Your task to perform on an android device: turn off priority inbox in the gmail app Image 0: 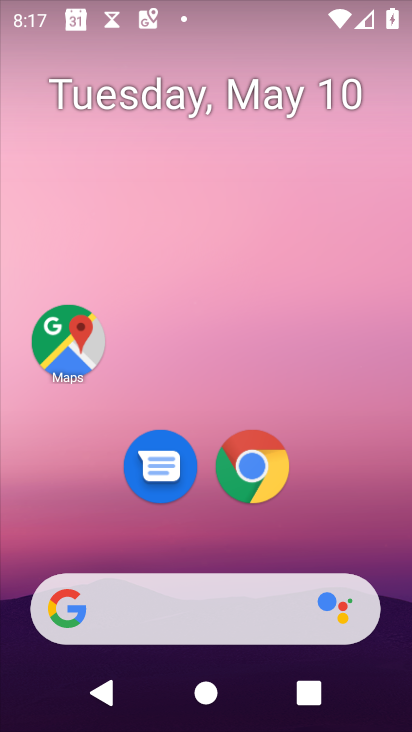
Step 0: drag from (356, 529) to (370, 26)
Your task to perform on an android device: turn off priority inbox in the gmail app Image 1: 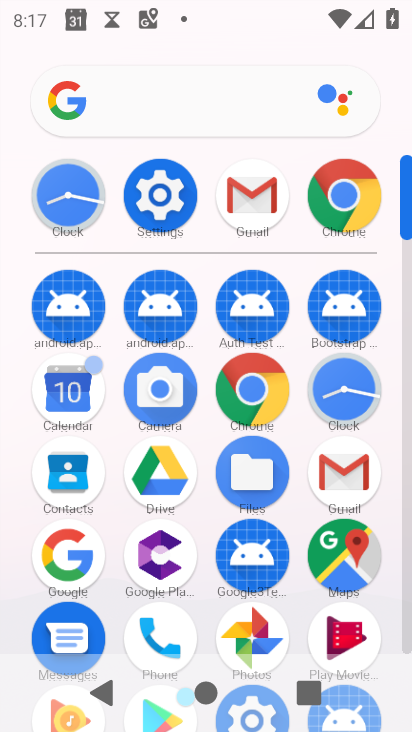
Step 1: click (358, 490)
Your task to perform on an android device: turn off priority inbox in the gmail app Image 2: 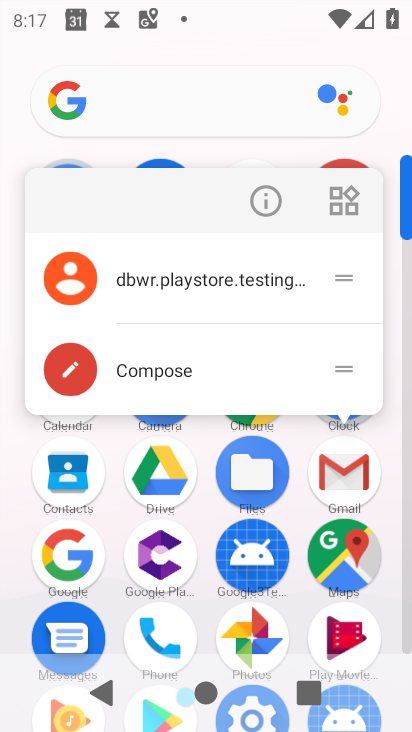
Step 2: click (353, 483)
Your task to perform on an android device: turn off priority inbox in the gmail app Image 3: 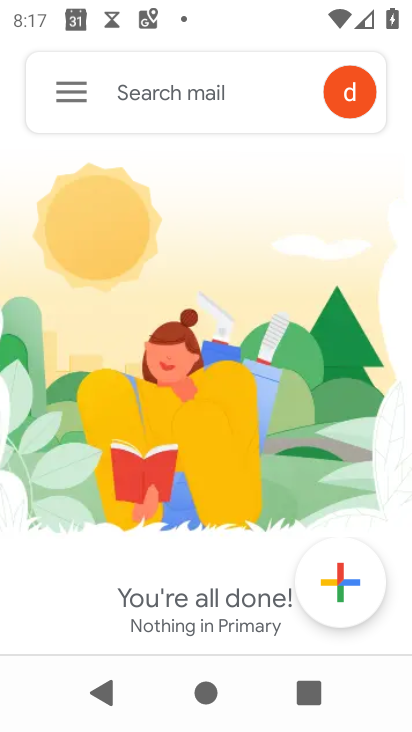
Step 3: click (65, 102)
Your task to perform on an android device: turn off priority inbox in the gmail app Image 4: 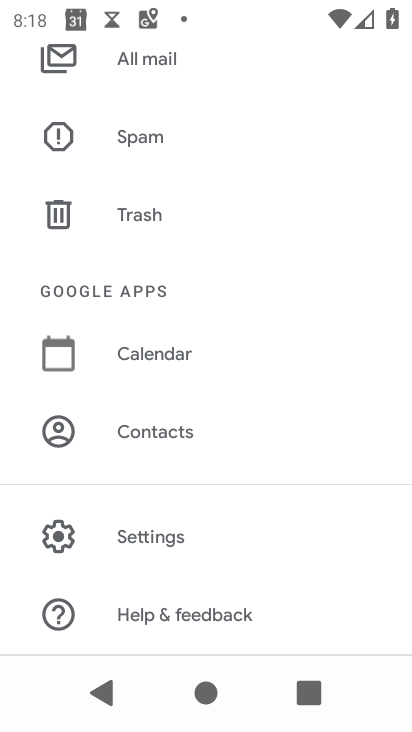
Step 4: click (145, 536)
Your task to perform on an android device: turn off priority inbox in the gmail app Image 5: 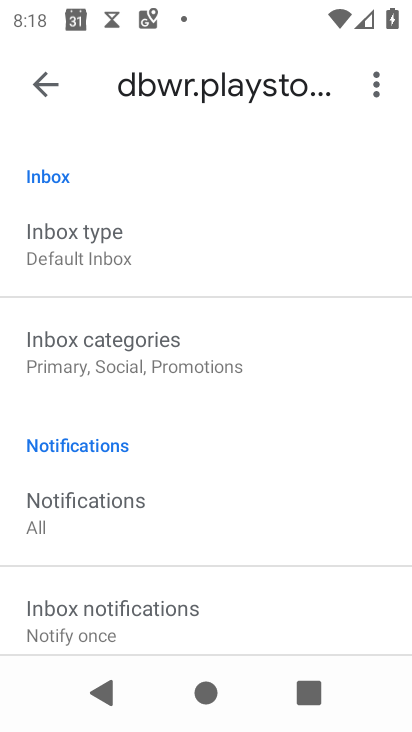
Step 5: click (133, 258)
Your task to perform on an android device: turn off priority inbox in the gmail app Image 6: 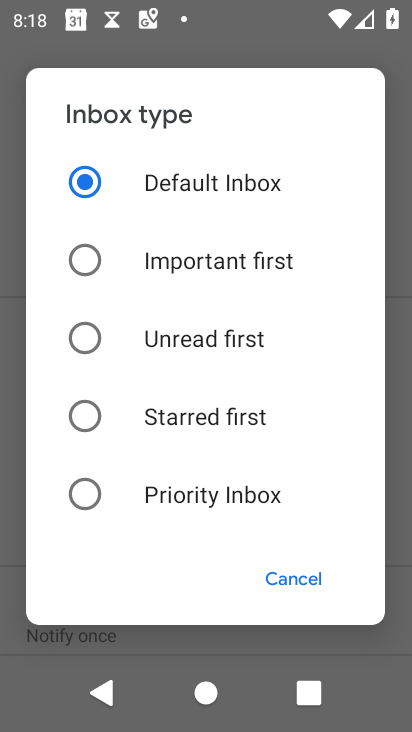
Step 6: click (229, 181)
Your task to perform on an android device: turn off priority inbox in the gmail app Image 7: 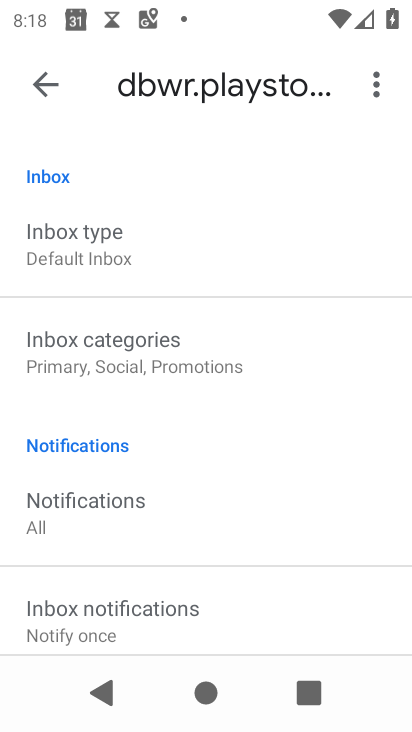
Step 7: task complete